Your task to perform on an android device: Go to Wikipedia Image 0: 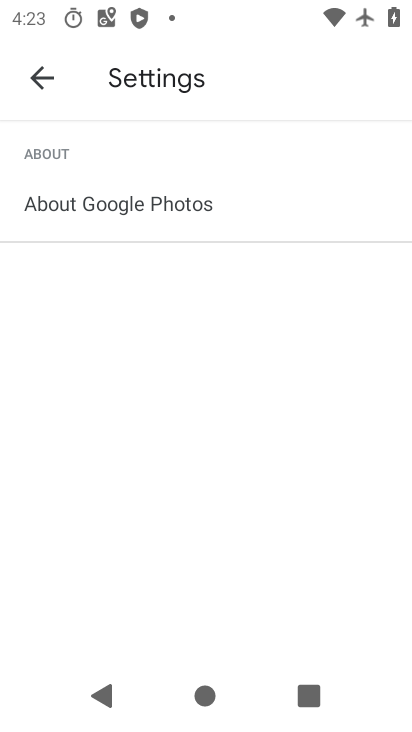
Step 0: press home button
Your task to perform on an android device: Go to Wikipedia Image 1: 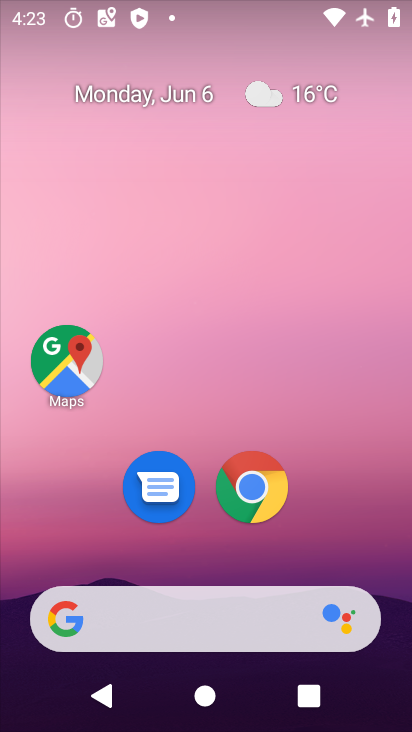
Step 1: click (255, 487)
Your task to perform on an android device: Go to Wikipedia Image 2: 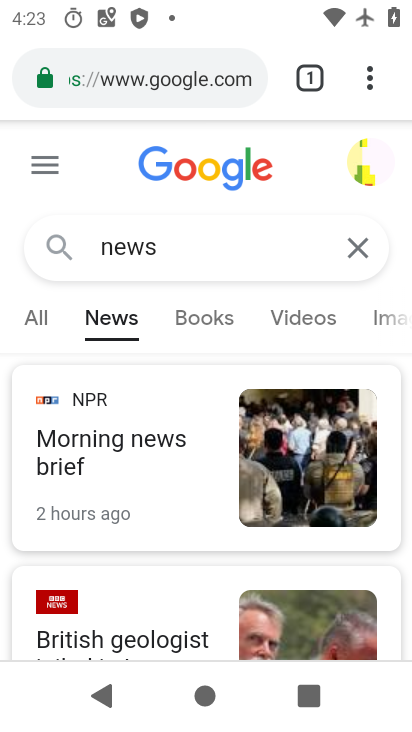
Step 2: click (181, 74)
Your task to perform on an android device: Go to Wikipedia Image 3: 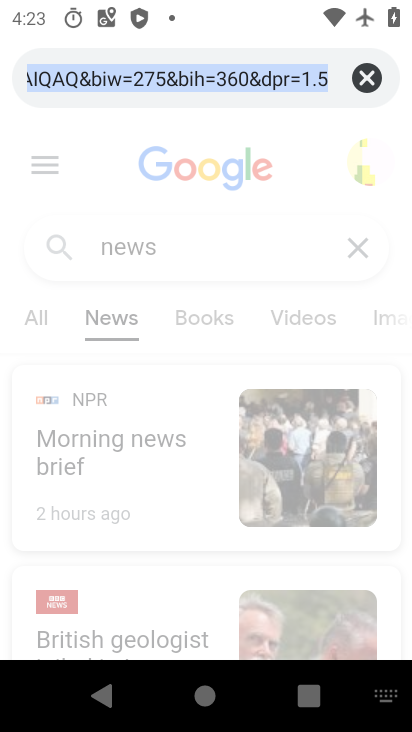
Step 3: type "wikipedia"
Your task to perform on an android device: Go to Wikipedia Image 4: 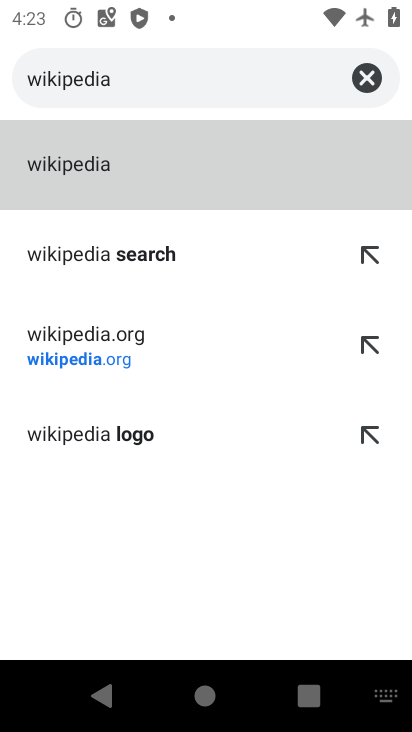
Step 4: click (58, 192)
Your task to perform on an android device: Go to Wikipedia Image 5: 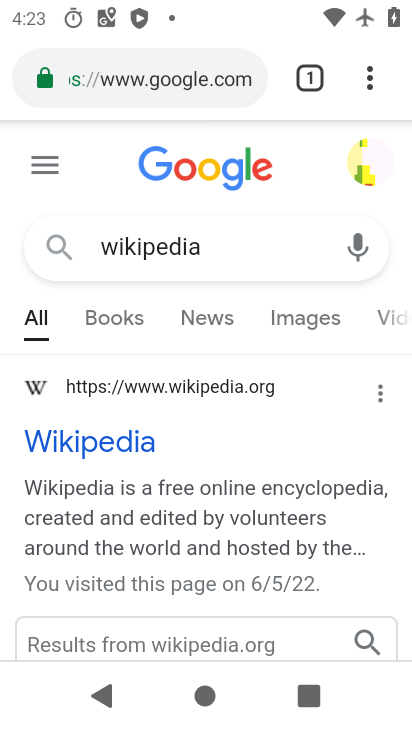
Step 5: click (97, 435)
Your task to perform on an android device: Go to Wikipedia Image 6: 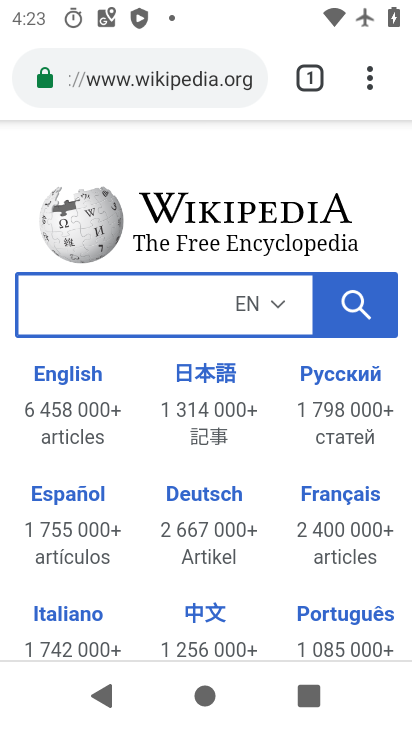
Step 6: task complete